Your task to perform on an android device: change timer sound Image 0: 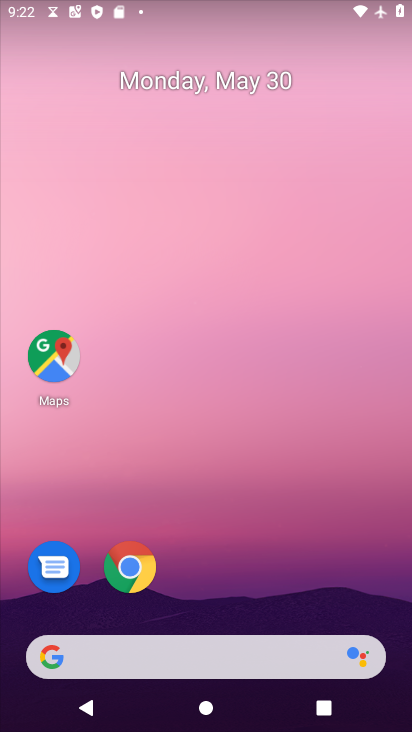
Step 0: drag from (216, 617) to (353, 24)
Your task to perform on an android device: change timer sound Image 1: 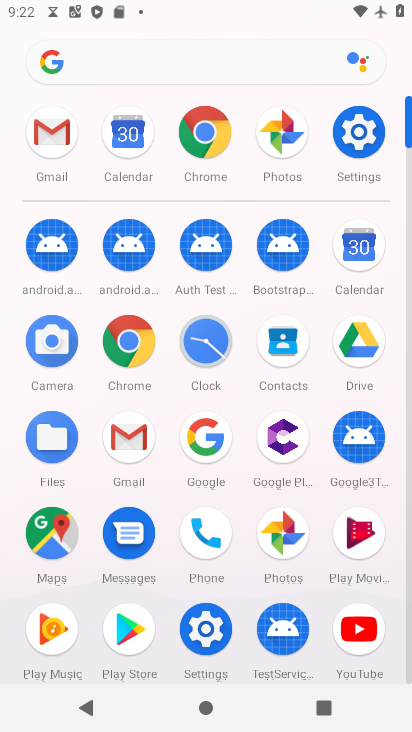
Step 1: click (200, 357)
Your task to perform on an android device: change timer sound Image 2: 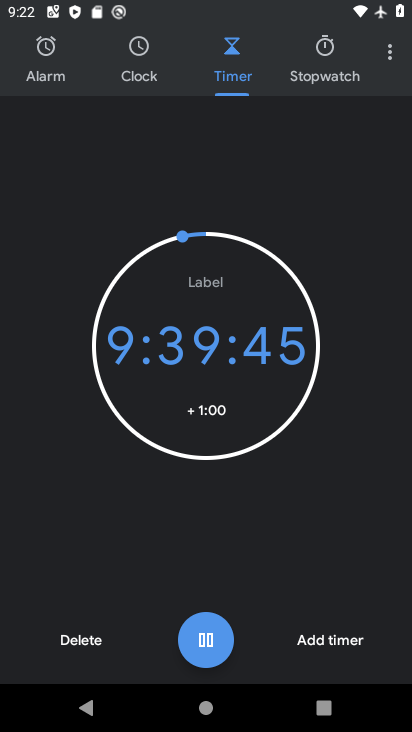
Step 2: click (386, 66)
Your task to perform on an android device: change timer sound Image 3: 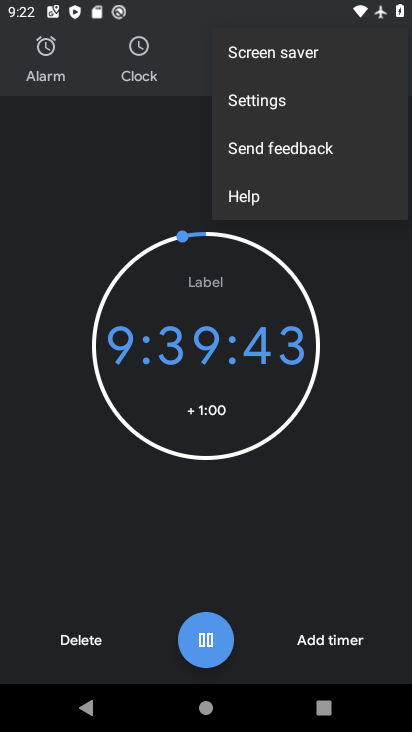
Step 3: click (344, 96)
Your task to perform on an android device: change timer sound Image 4: 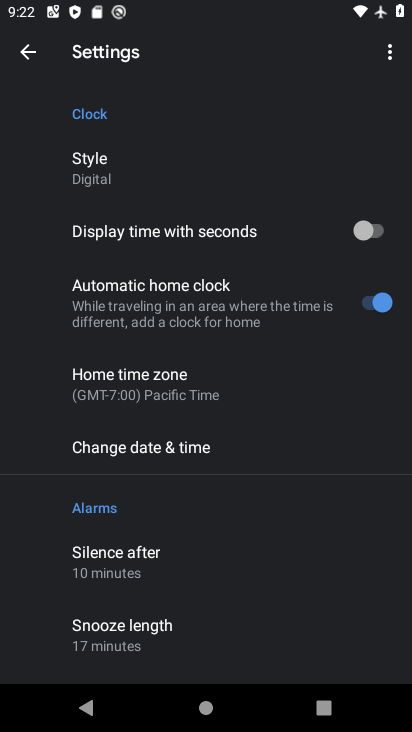
Step 4: drag from (251, 610) to (206, 176)
Your task to perform on an android device: change timer sound Image 5: 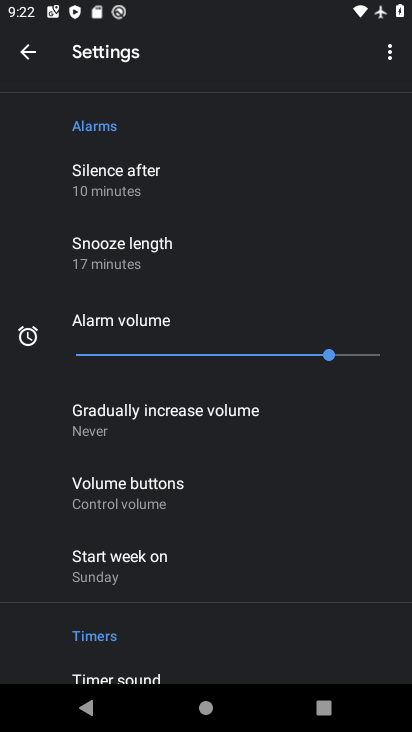
Step 5: drag from (238, 595) to (231, 226)
Your task to perform on an android device: change timer sound Image 6: 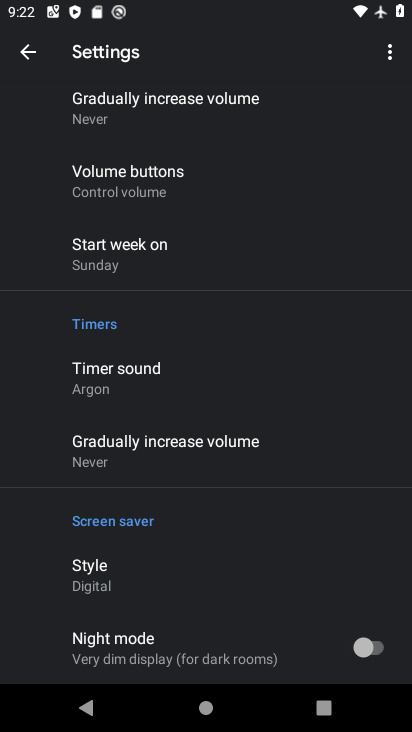
Step 6: click (208, 363)
Your task to perform on an android device: change timer sound Image 7: 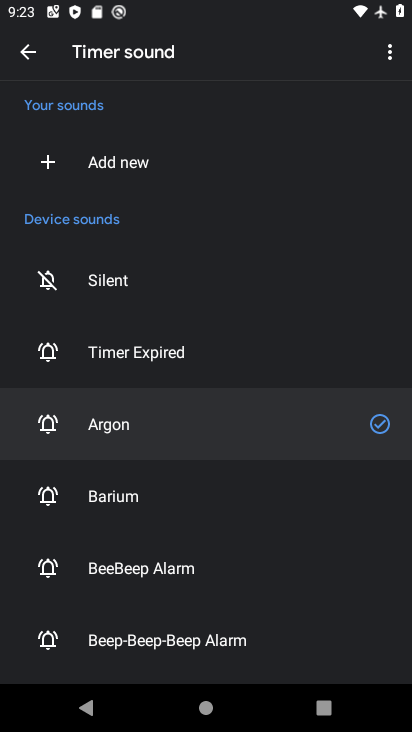
Step 7: click (187, 498)
Your task to perform on an android device: change timer sound Image 8: 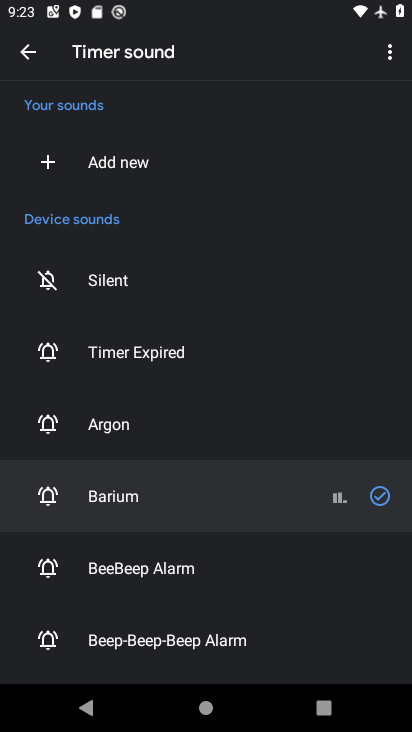
Step 8: task complete